Your task to perform on an android device: visit the assistant section in the google photos Image 0: 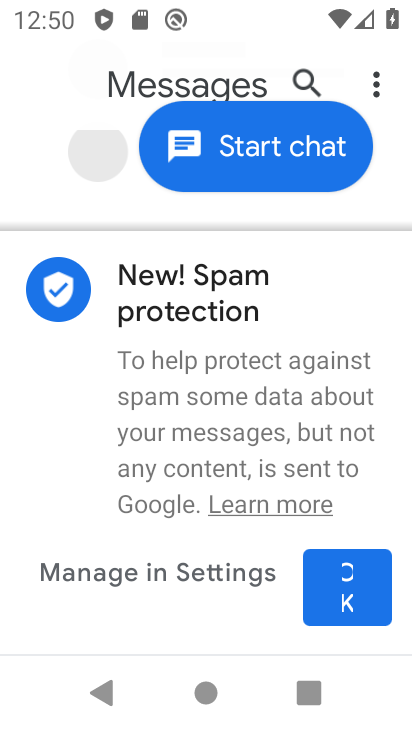
Step 0: press home button
Your task to perform on an android device: visit the assistant section in the google photos Image 1: 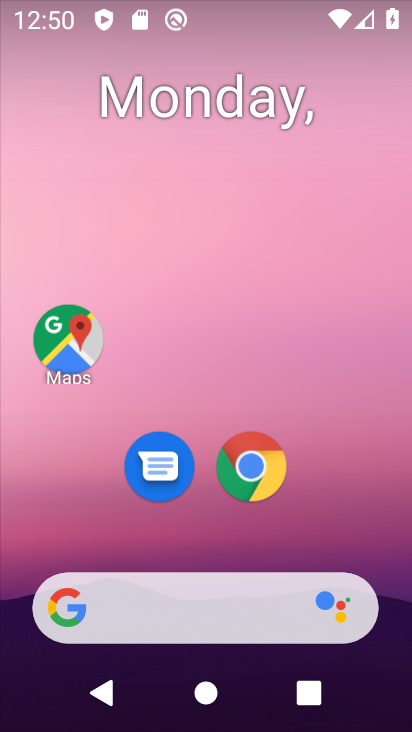
Step 1: drag from (204, 528) to (247, 0)
Your task to perform on an android device: visit the assistant section in the google photos Image 2: 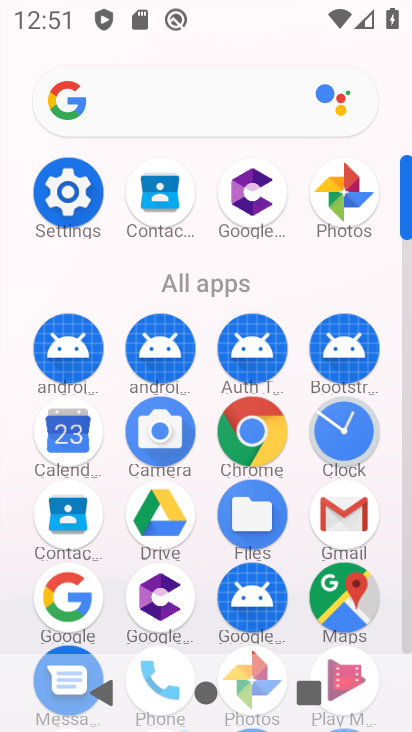
Step 2: drag from (210, 595) to (233, 141)
Your task to perform on an android device: visit the assistant section in the google photos Image 3: 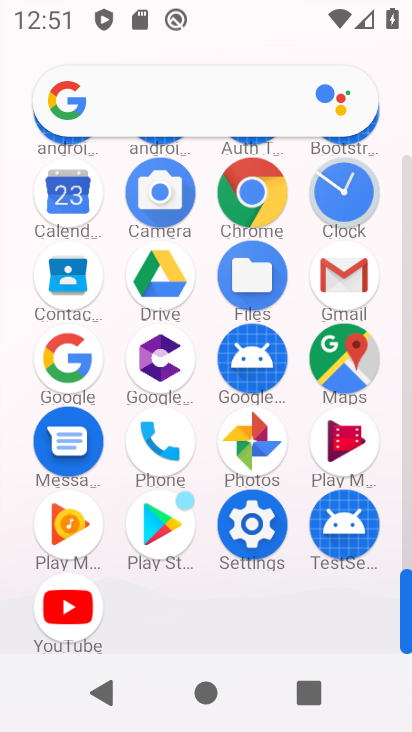
Step 3: click (252, 447)
Your task to perform on an android device: visit the assistant section in the google photos Image 4: 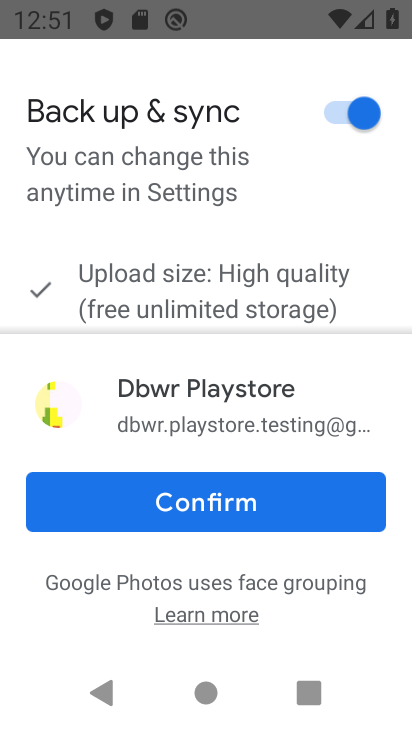
Step 4: click (269, 512)
Your task to perform on an android device: visit the assistant section in the google photos Image 5: 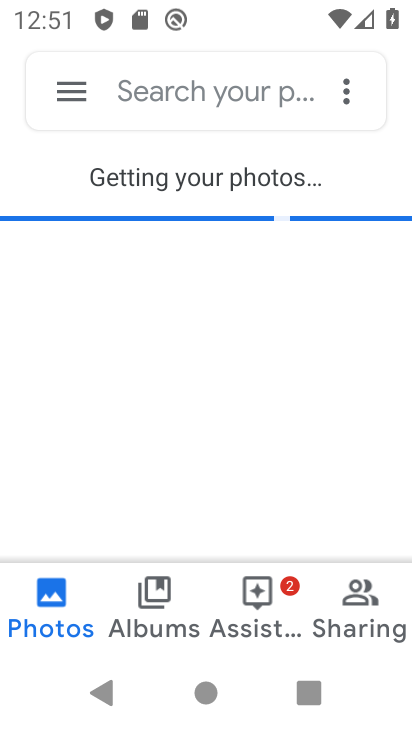
Step 5: click (279, 597)
Your task to perform on an android device: visit the assistant section in the google photos Image 6: 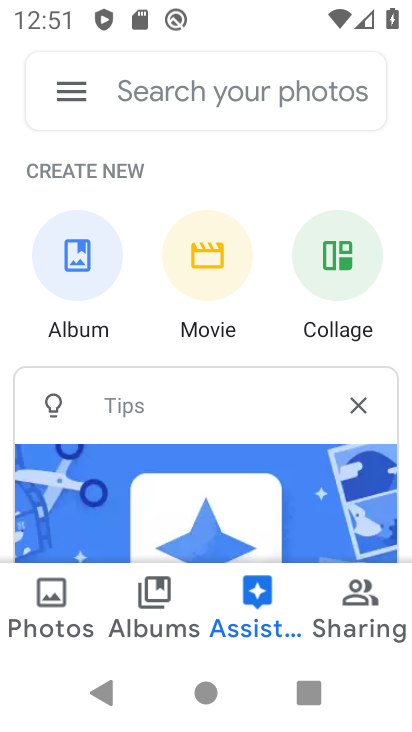
Step 6: task complete